Your task to perform on an android device: Search for "bose soundlink" on ebay, select the first entry, and add it to the cart. Image 0: 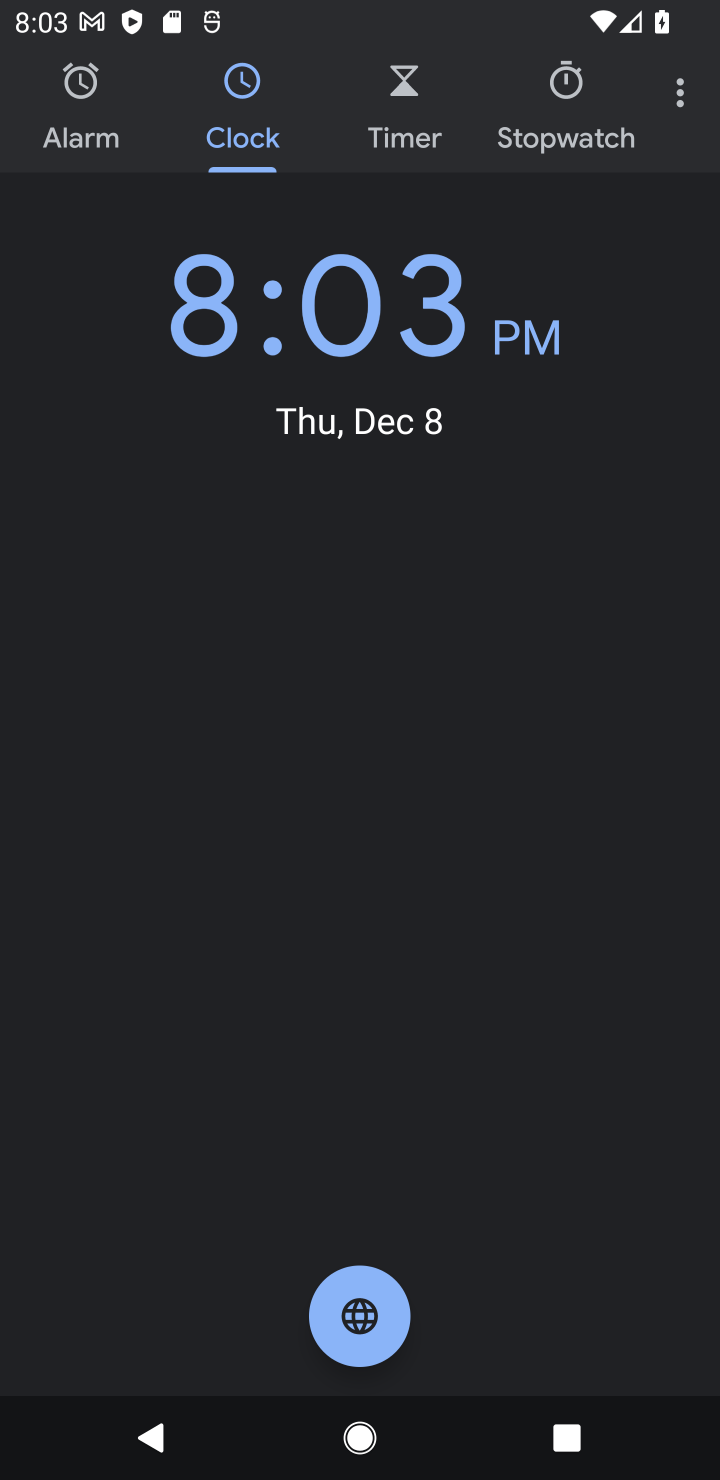
Step 0: task complete